Your task to perform on an android device: What's the weather going to be tomorrow? Image 0: 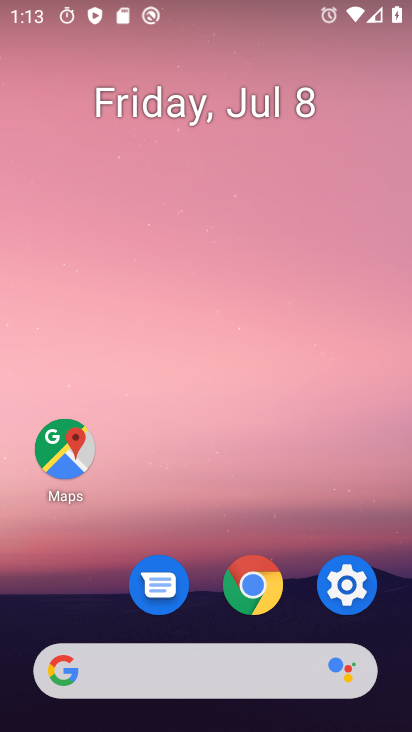
Step 0: click (171, 686)
Your task to perform on an android device: What's the weather going to be tomorrow? Image 1: 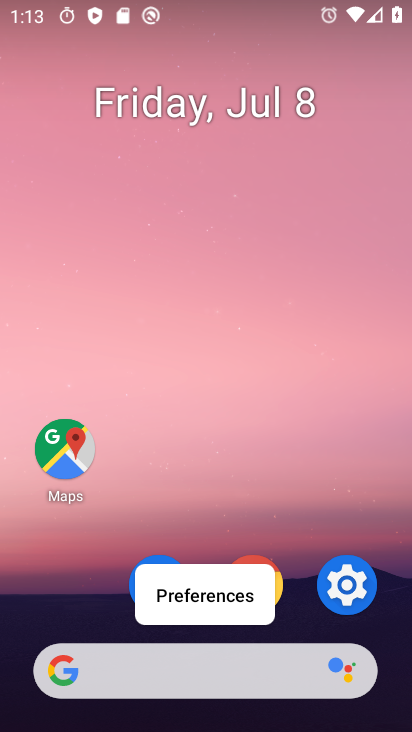
Step 1: click (158, 683)
Your task to perform on an android device: What's the weather going to be tomorrow? Image 2: 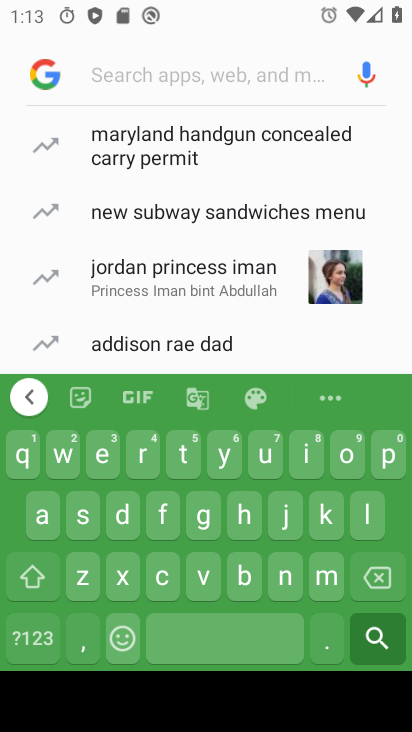
Step 2: click (52, 467)
Your task to perform on an android device: What's the weather going to be tomorrow? Image 3: 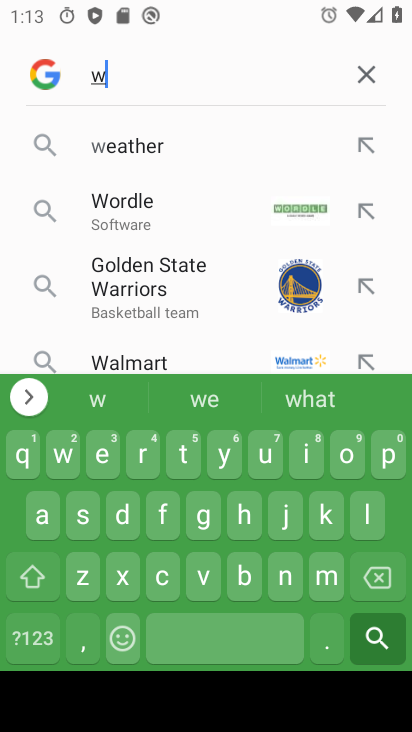
Step 3: click (150, 153)
Your task to perform on an android device: What's the weather going to be tomorrow? Image 4: 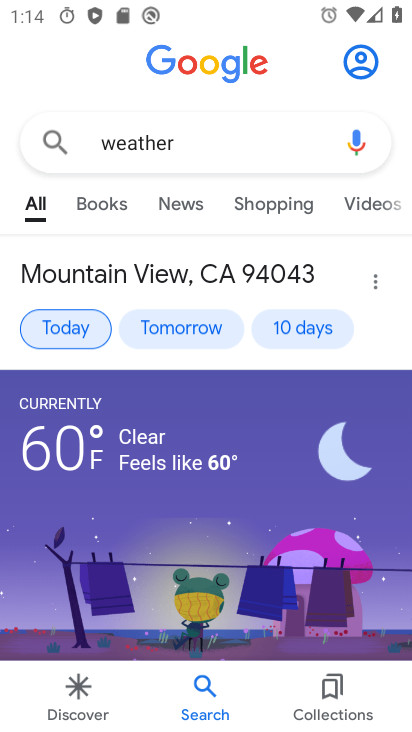
Step 4: task complete